Your task to perform on an android device: see creations saved in the google photos Image 0: 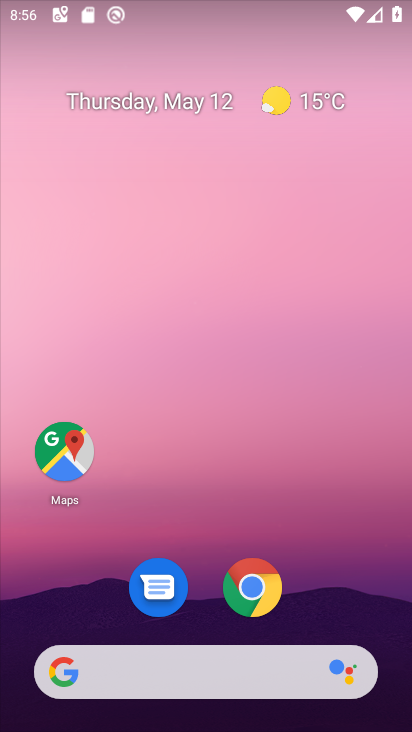
Step 0: drag from (381, 634) to (316, 34)
Your task to perform on an android device: see creations saved in the google photos Image 1: 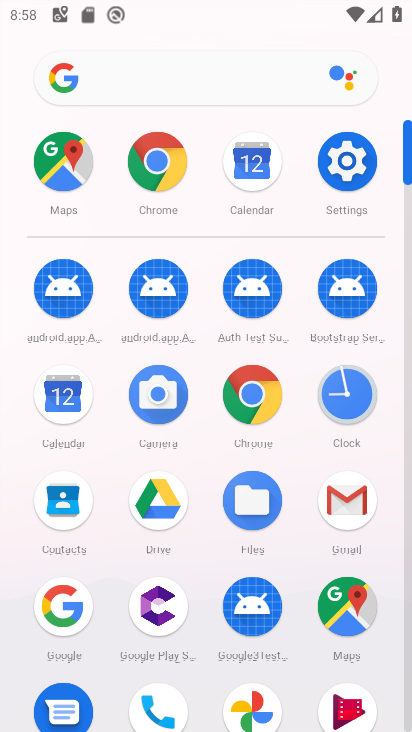
Step 1: click (244, 699)
Your task to perform on an android device: see creations saved in the google photos Image 2: 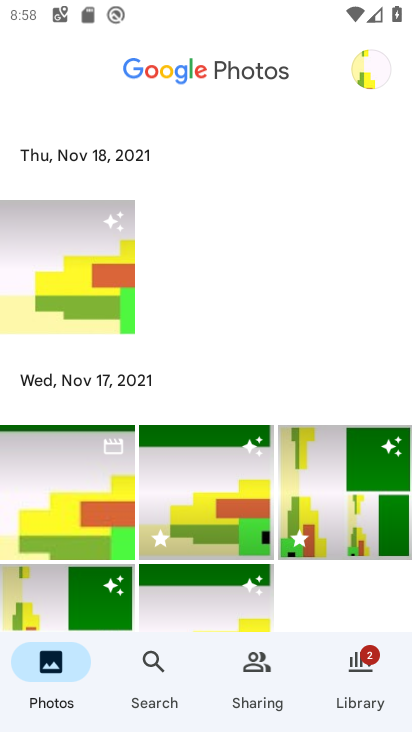
Step 2: click (189, 69)
Your task to perform on an android device: see creations saved in the google photos Image 3: 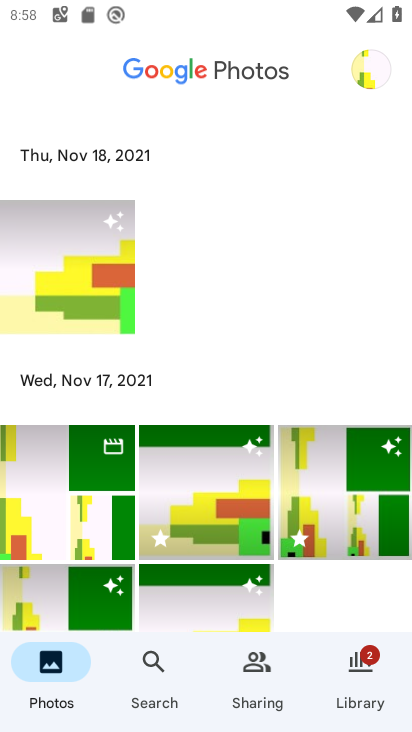
Step 3: click (362, 58)
Your task to perform on an android device: see creations saved in the google photos Image 4: 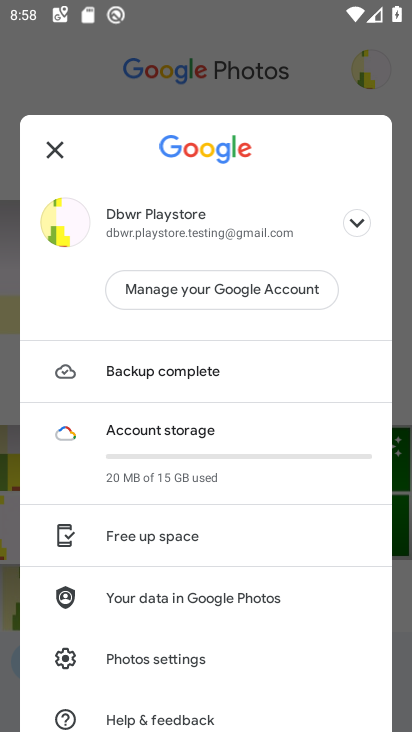
Step 4: click (244, 36)
Your task to perform on an android device: see creations saved in the google photos Image 5: 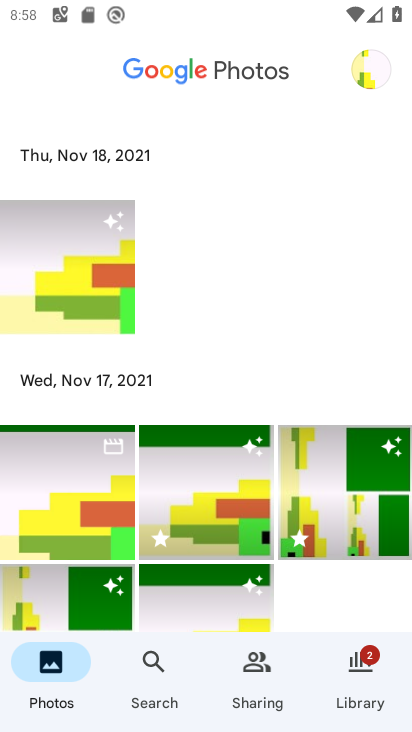
Step 5: click (150, 660)
Your task to perform on an android device: see creations saved in the google photos Image 6: 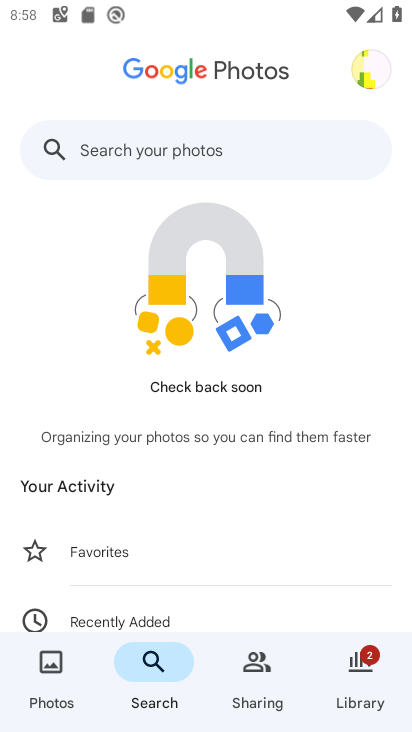
Step 6: drag from (141, 558) to (157, 56)
Your task to perform on an android device: see creations saved in the google photos Image 7: 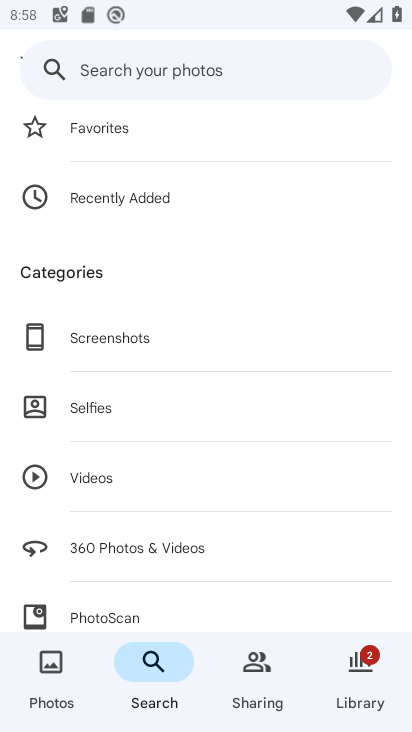
Step 7: drag from (66, 567) to (143, 94)
Your task to perform on an android device: see creations saved in the google photos Image 8: 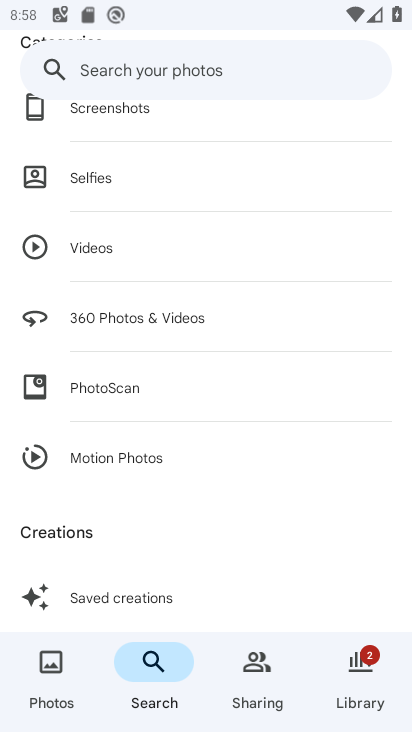
Step 8: click (68, 604)
Your task to perform on an android device: see creations saved in the google photos Image 9: 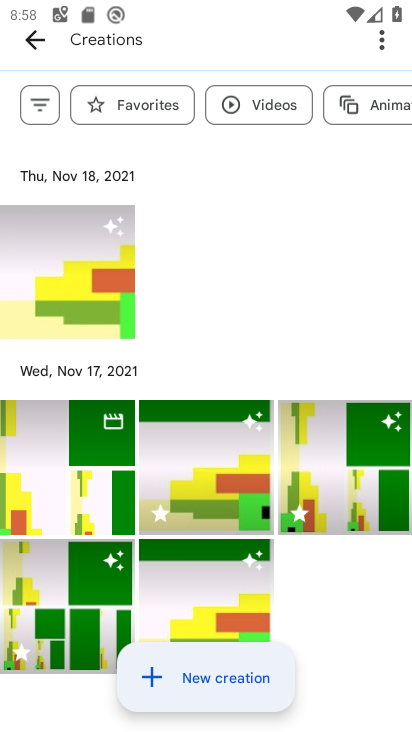
Step 9: task complete